Your task to perform on an android device: turn off picture-in-picture Image 0: 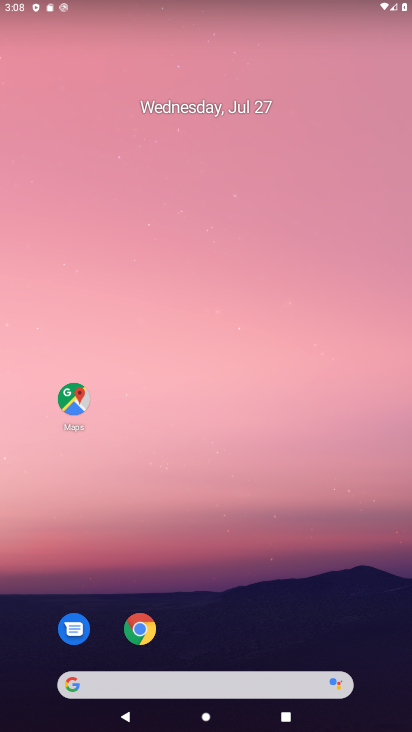
Step 0: press home button
Your task to perform on an android device: turn off picture-in-picture Image 1: 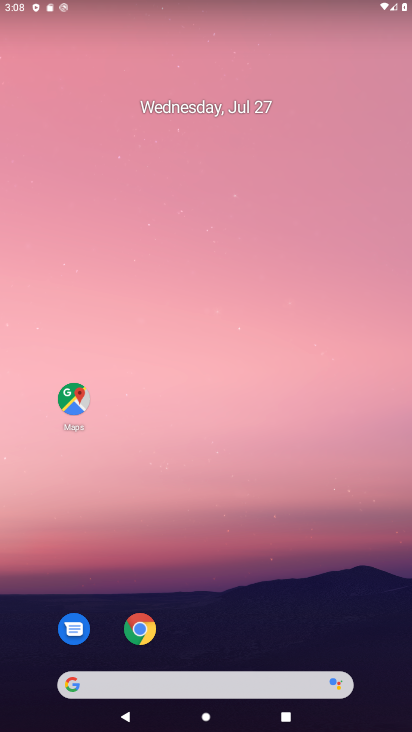
Step 1: click (141, 623)
Your task to perform on an android device: turn off picture-in-picture Image 2: 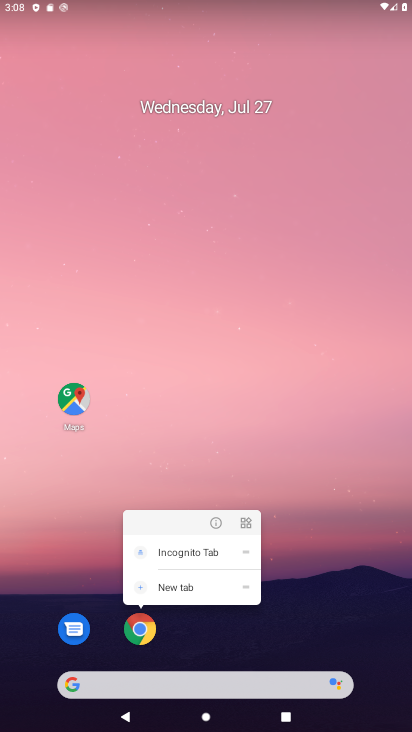
Step 2: click (223, 522)
Your task to perform on an android device: turn off picture-in-picture Image 3: 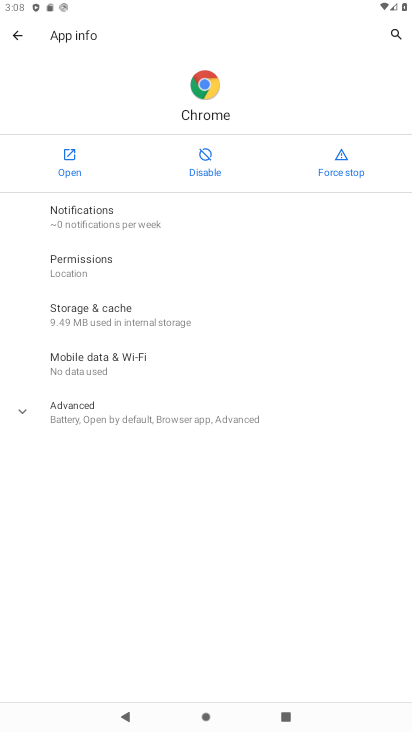
Step 3: click (18, 410)
Your task to perform on an android device: turn off picture-in-picture Image 4: 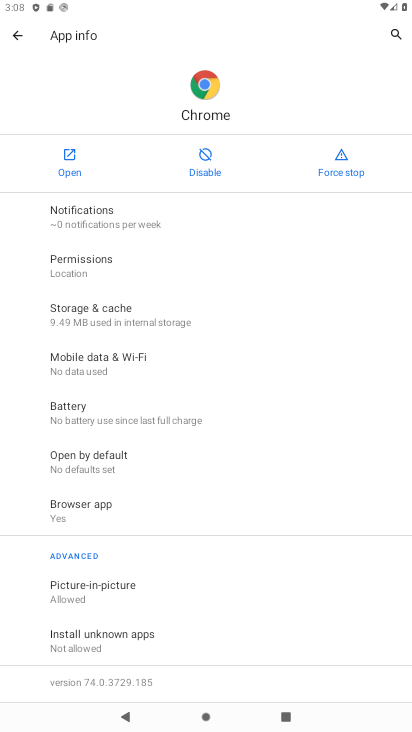
Step 4: click (87, 580)
Your task to perform on an android device: turn off picture-in-picture Image 5: 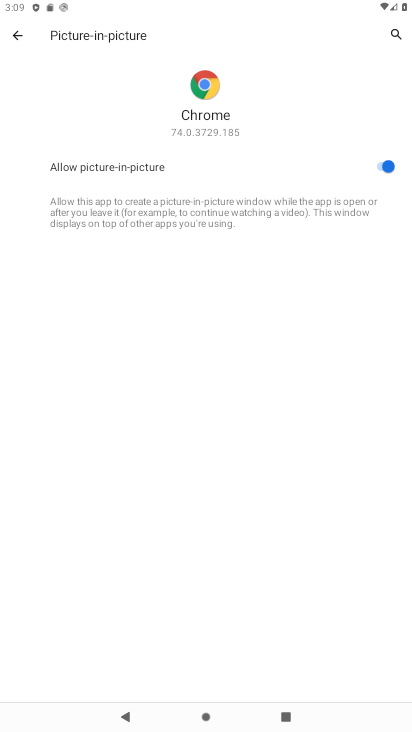
Step 5: click (369, 159)
Your task to perform on an android device: turn off picture-in-picture Image 6: 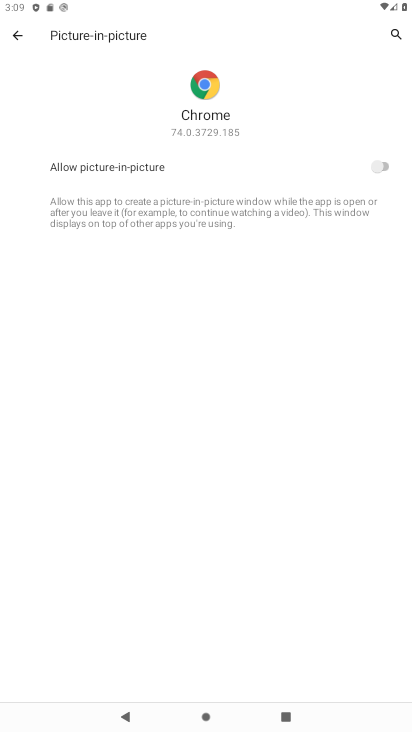
Step 6: task complete